Your task to perform on an android device: Open maps Image 0: 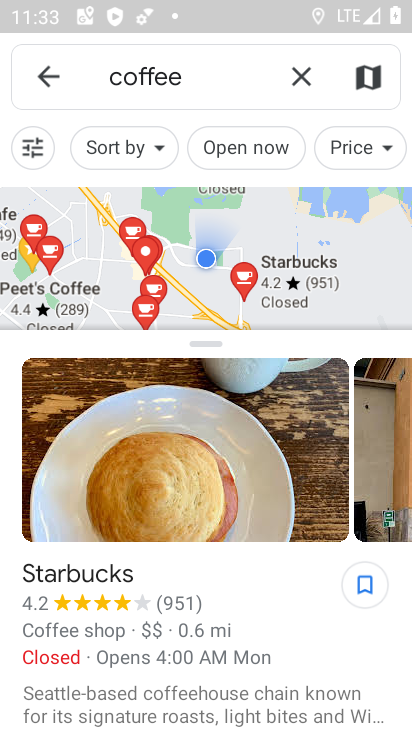
Step 0: click (46, 86)
Your task to perform on an android device: Open maps Image 1: 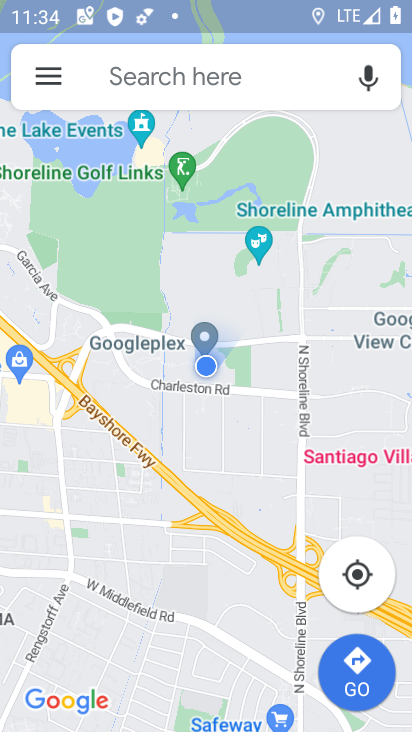
Step 1: task complete